Your task to perform on an android device: toggle translation in the chrome app Image 0: 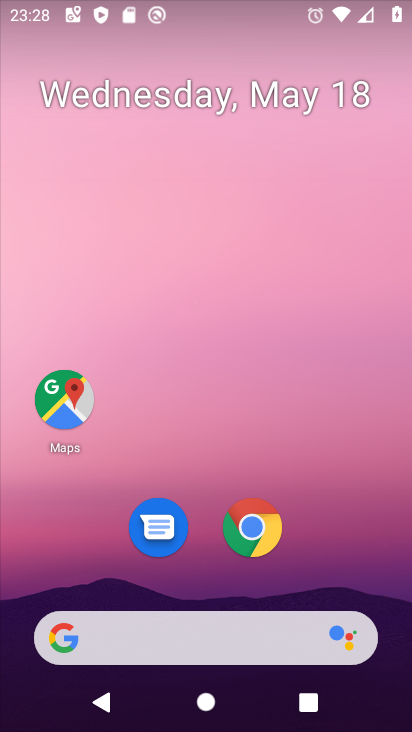
Step 0: drag from (345, 559) to (333, 36)
Your task to perform on an android device: toggle translation in the chrome app Image 1: 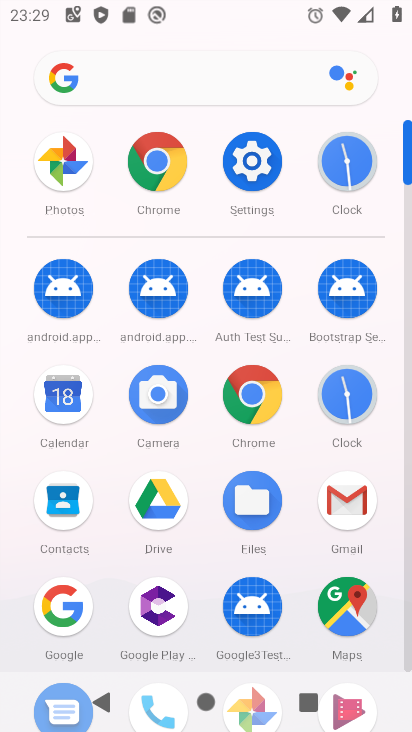
Step 1: click (171, 191)
Your task to perform on an android device: toggle translation in the chrome app Image 2: 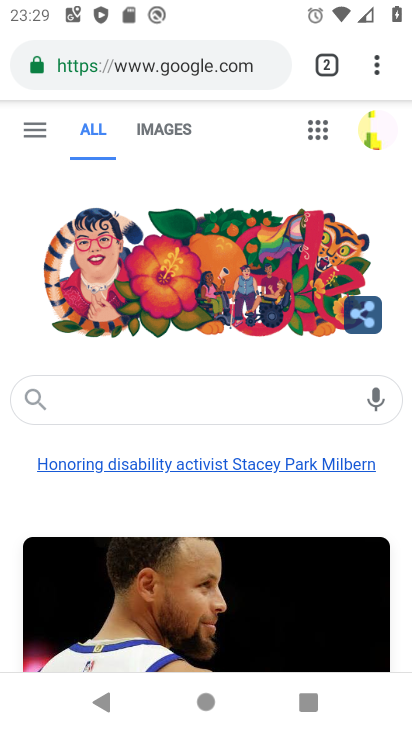
Step 2: click (390, 74)
Your task to perform on an android device: toggle translation in the chrome app Image 3: 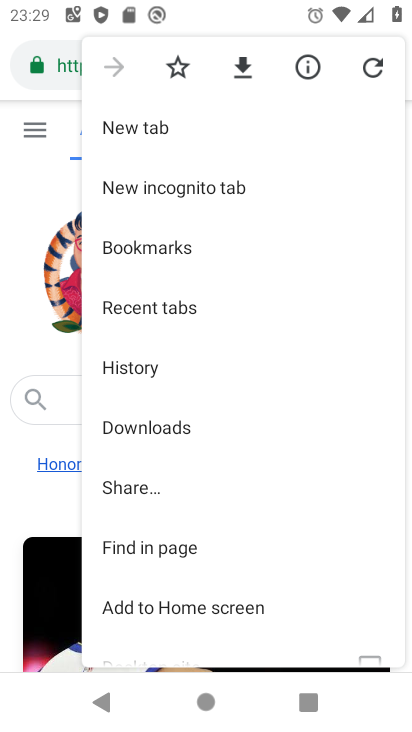
Step 3: drag from (189, 549) to (182, 311)
Your task to perform on an android device: toggle translation in the chrome app Image 4: 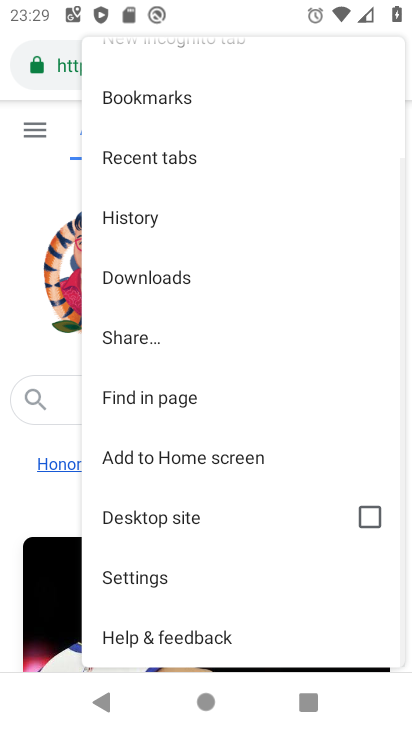
Step 4: click (196, 585)
Your task to perform on an android device: toggle translation in the chrome app Image 5: 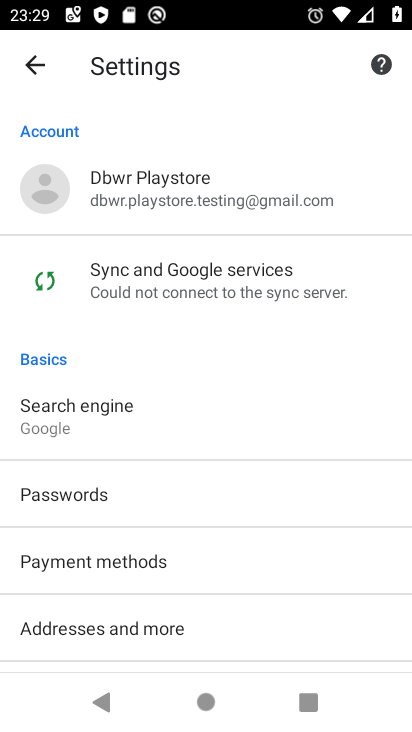
Step 5: drag from (196, 585) to (200, 79)
Your task to perform on an android device: toggle translation in the chrome app Image 6: 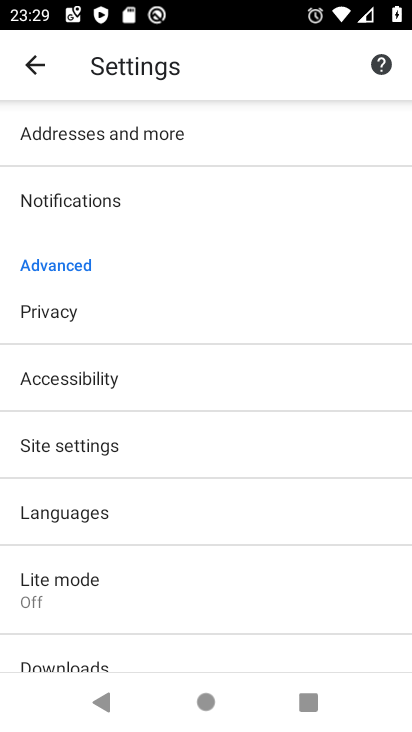
Step 6: click (194, 526)
Your task to perform on an android device: toggle translation in the chrome app Image 7: 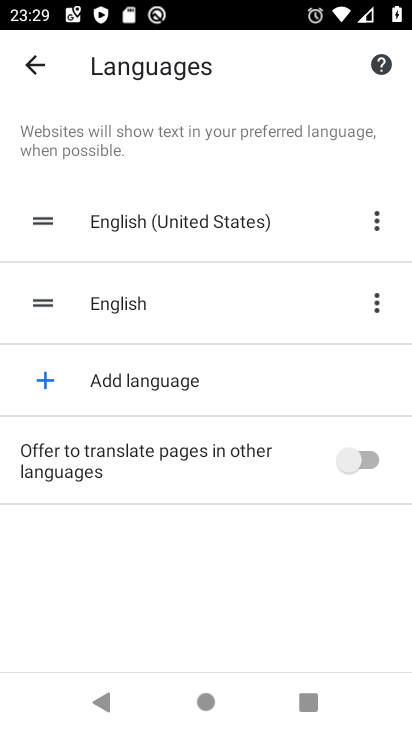
Step 7: click (348, 478)
Your task to perform on an android device: toggle translation in the chrome app Image 8: 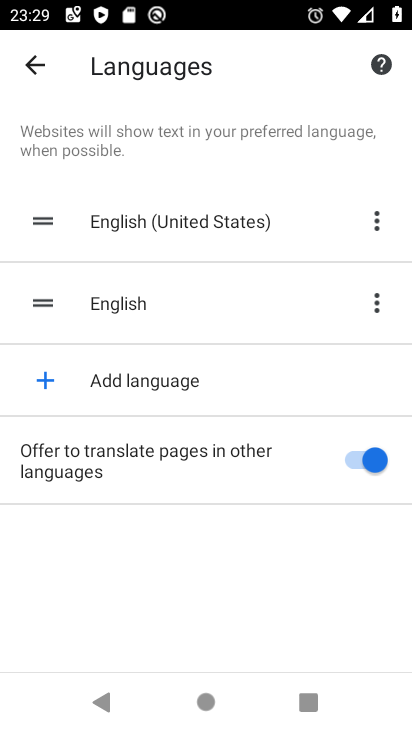
Step 8: task complete